Your task to perform on an android device: Go to Reddit.com Image 0: 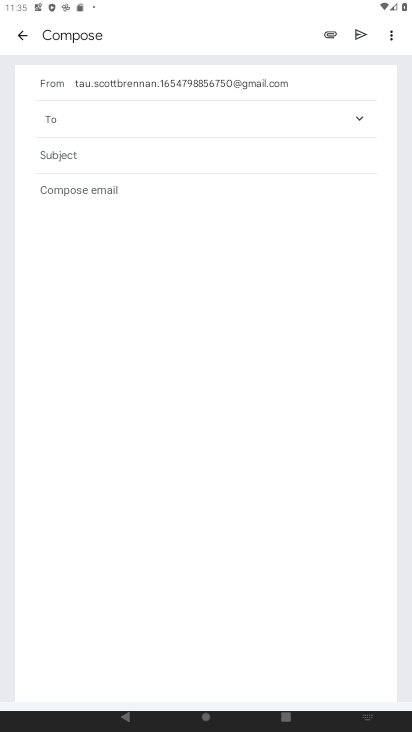
Step 0: click (268, 612)
Your task to perform on an android device: Go to Reddit.com Image 1: 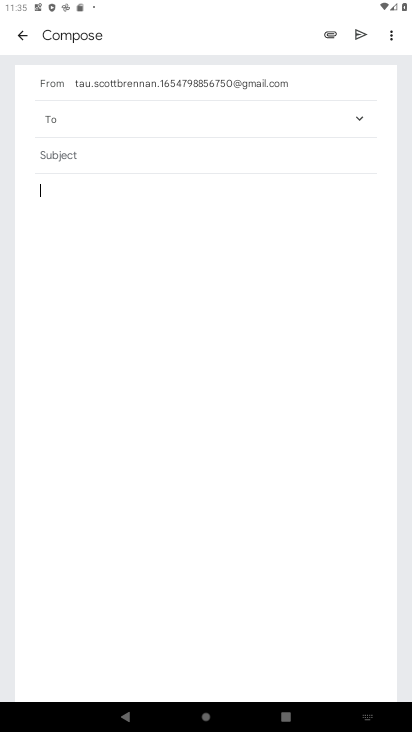
Step 1: press home button
Your task to perform on an android device: Go to Reddit.com Image 2: 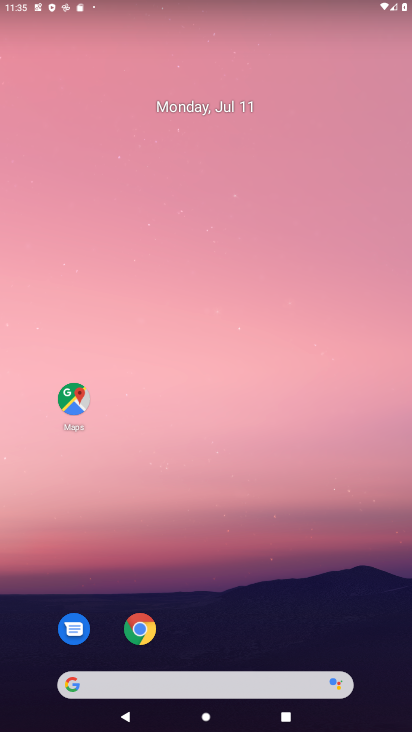
Step 2: drag from (265, 617) to (183, 25)
Your task to perform on an android device: Go to Reddit.com Image 3: 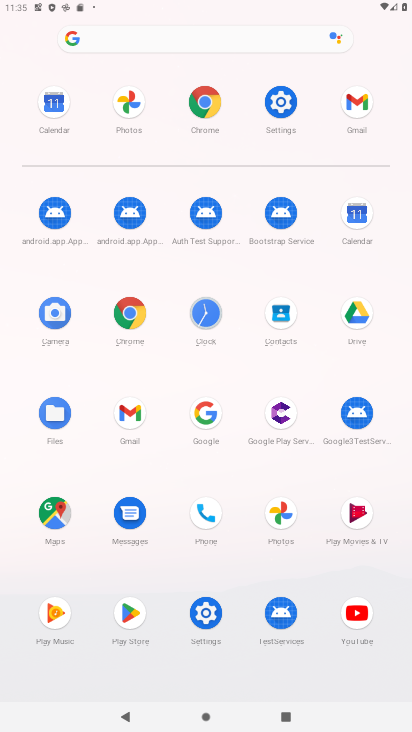
Step 3: click (216, 108)
Your task to perform on an android device: Go to Reddit.com Image 4: 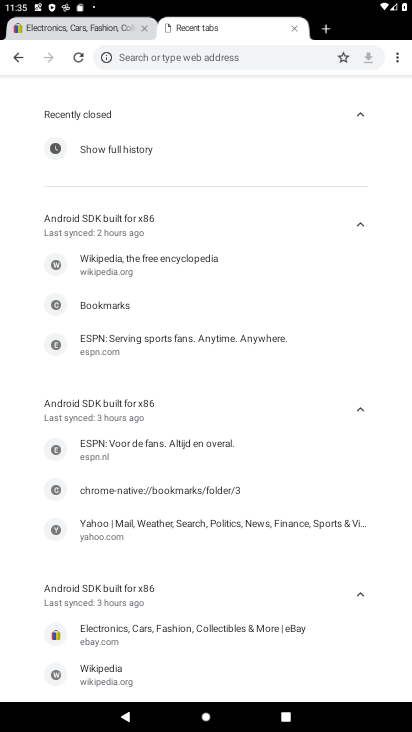
Step 4: click (230, 61)
Your task to perform on an android device: Go to Reddit.com Image 5: 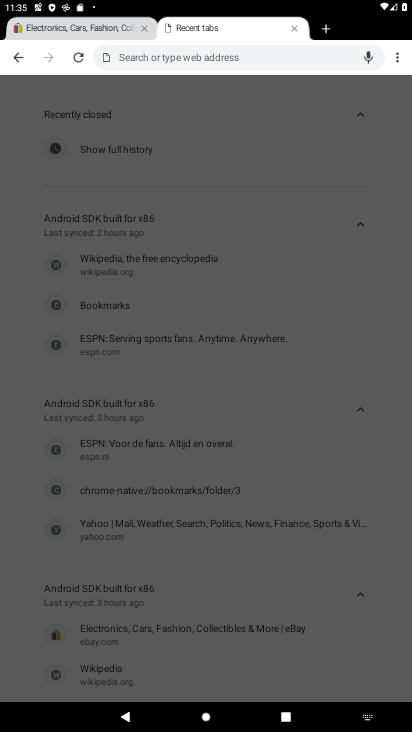
Step 5: type "reddit.com"
Your task to perform on an android device: Go to Reddit.com Image 6: 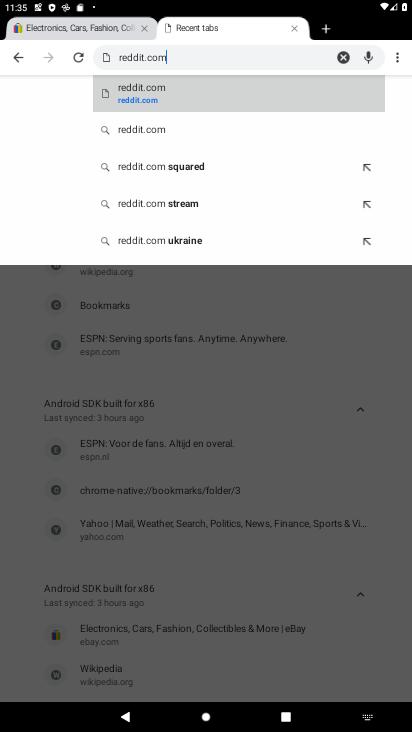
Step 6: click (169, 133)
Your task to perform on an android device: Go to Reddit.com Image 7: 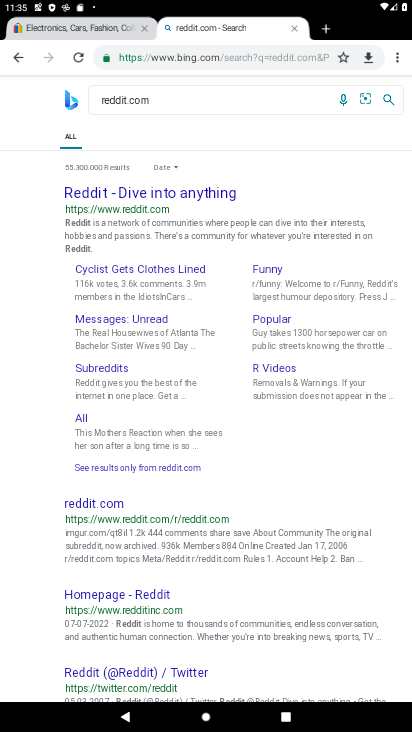
Step 7: task complete